Your task to perform on an android device: turn off location Image 0: 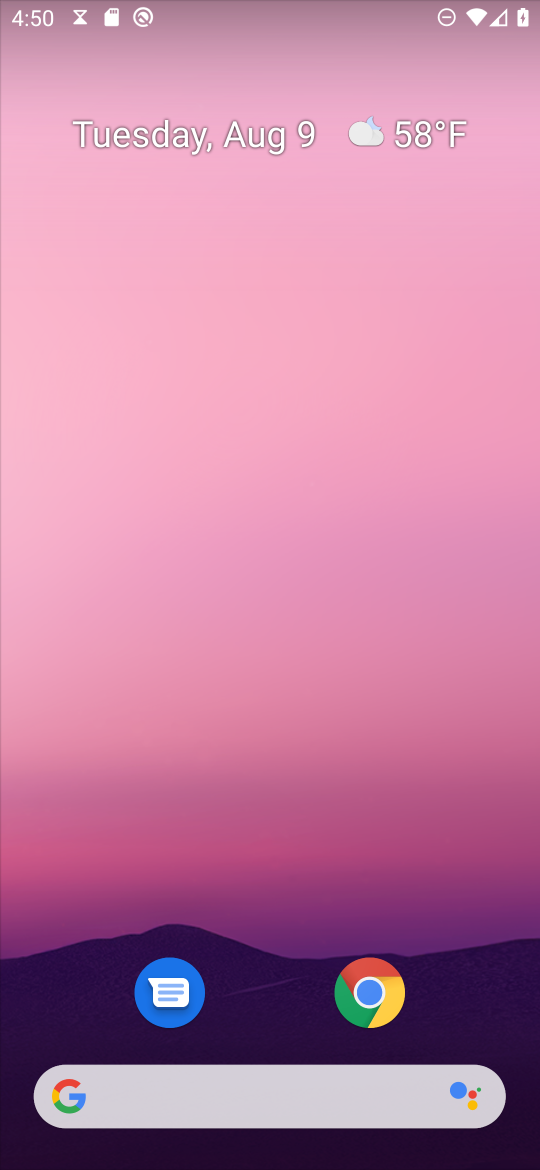
Step 0: drag from (234, 1087) to (264, 2)
Your task to perform on an android device: turn off location Image 1: 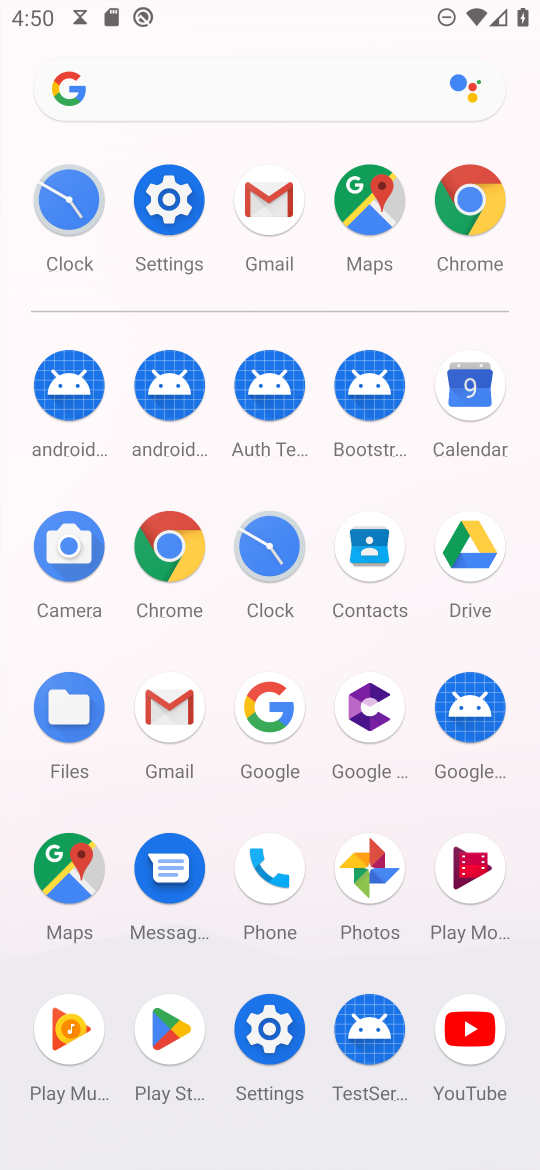
Step 1: click (183, 218)
Your task to perform on an android device: turn off location Image 2: 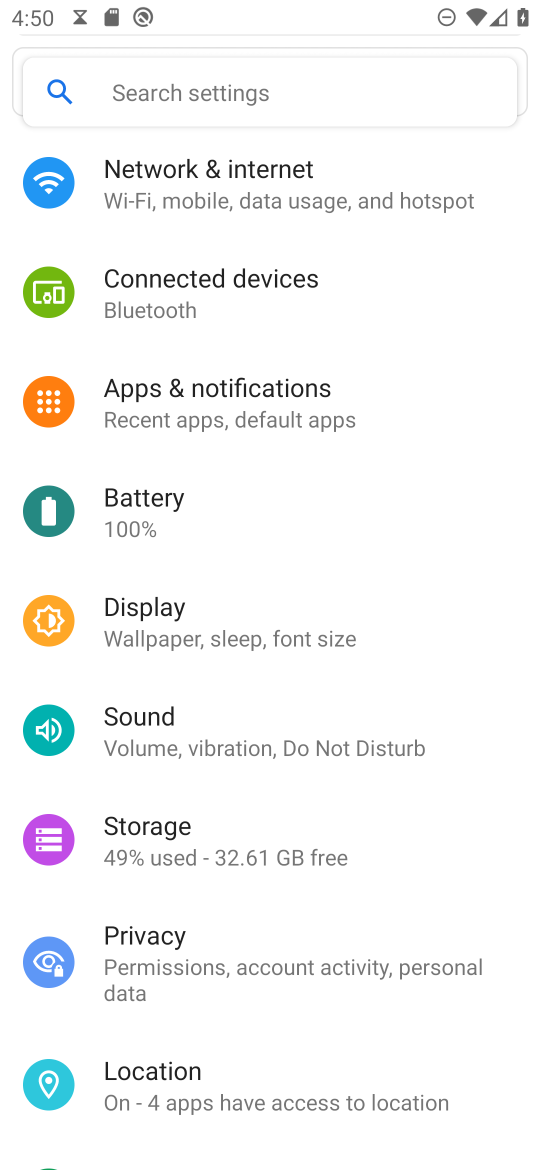
Step 2: click (186, 1078)
Your task to perform on an android device: turn off location Image 3: 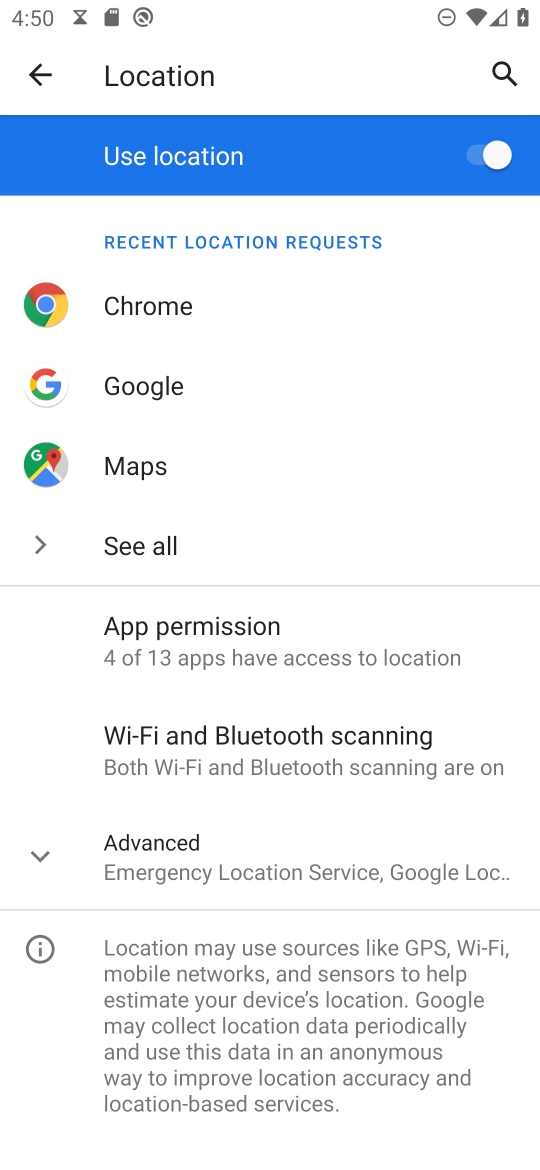
Step 3: click (495, 138)
Your task to perform on an android device: turn off location Image 4: 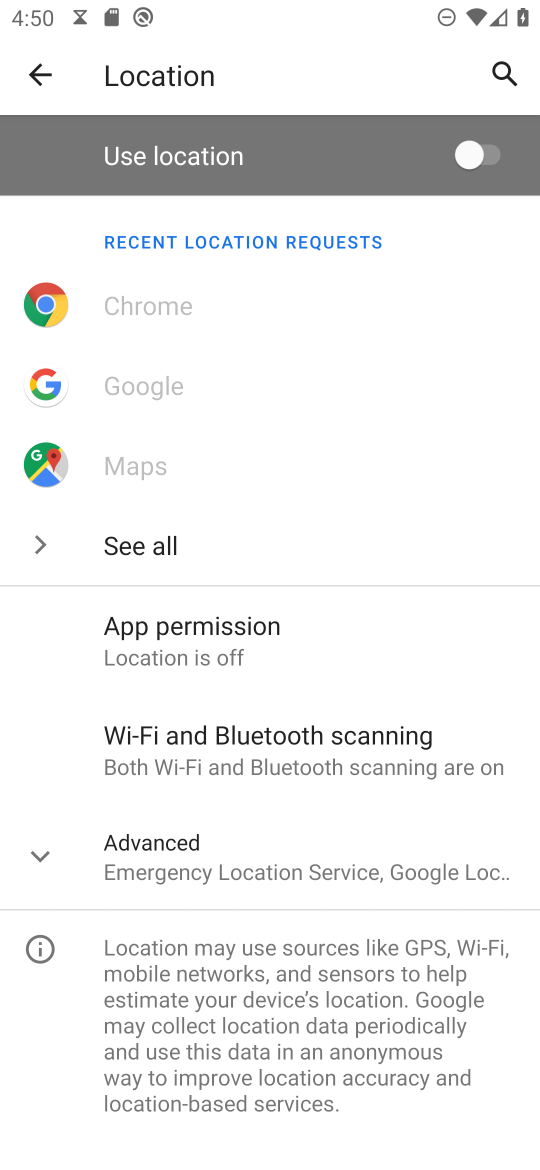
Step 4: task complete